Your task to perform on an android device: choose inbox layout in the gmail app Image 0: 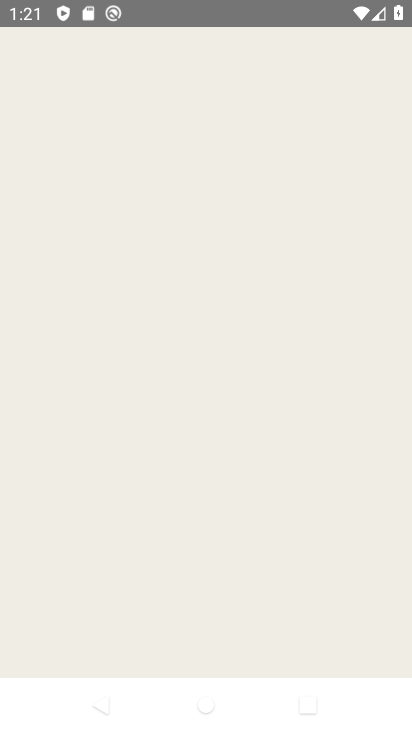
Step 0: click (305, 251)
Your task to perform on an android device: choose inbox layout in the gmail app Image 1: 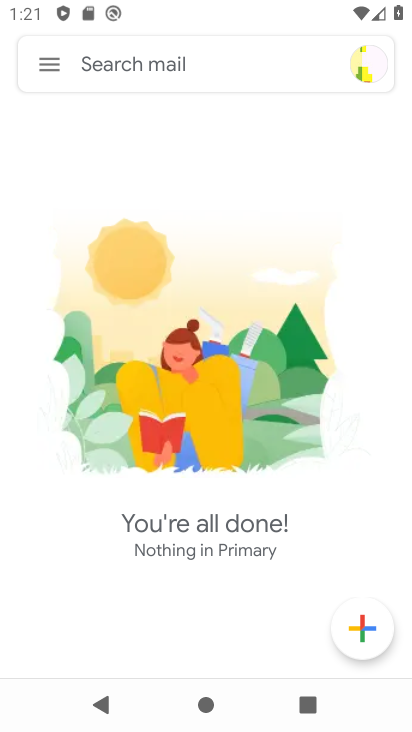
Step 1: press home button
Your task to perform on an android device: choose inbox layout in the gmail app Image 2: 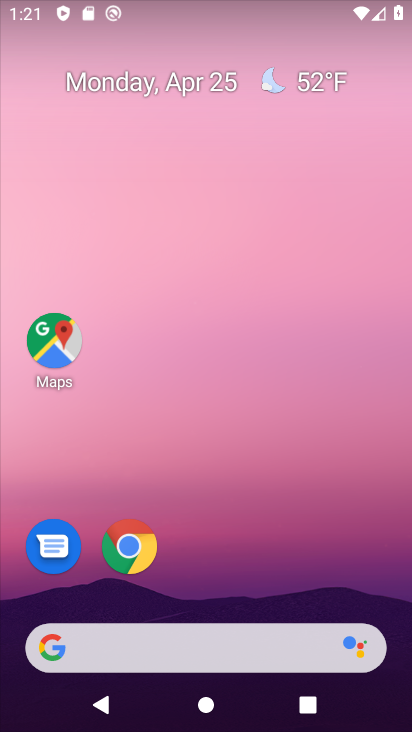
Step 2: drag from (209, 644) to (277, 168)
Your task to perform on an android device: choose inbox layout in the gmail app Image 3: 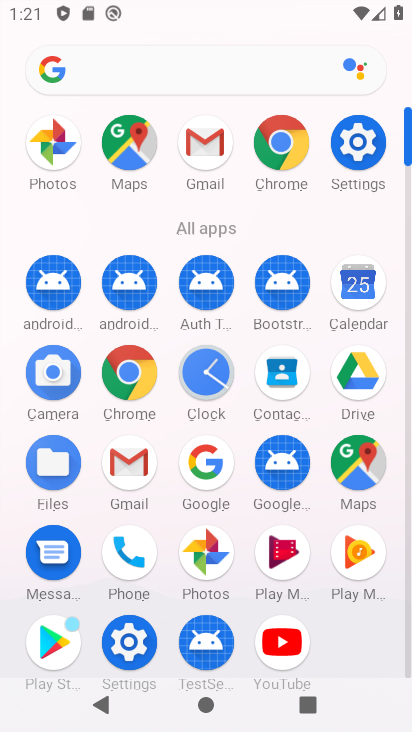
Step 3: click (195, 172)
Your task to perform on an android device: choose inbox layout in the gmail app Image 4: 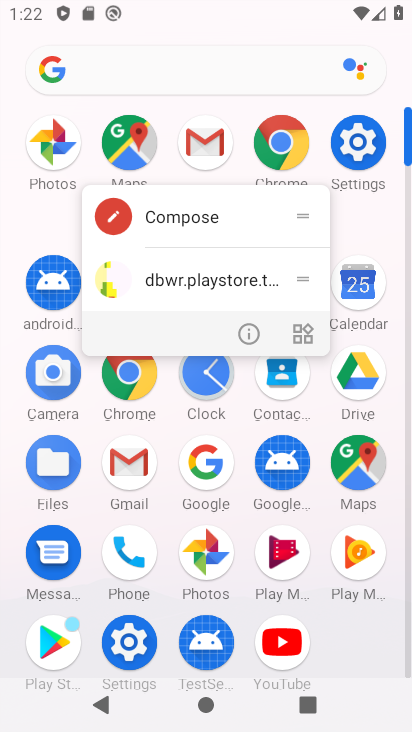
Step 4: click (198, 168)
Your task to perform on an android device: choose inbox layout in the gmail app Image 5: 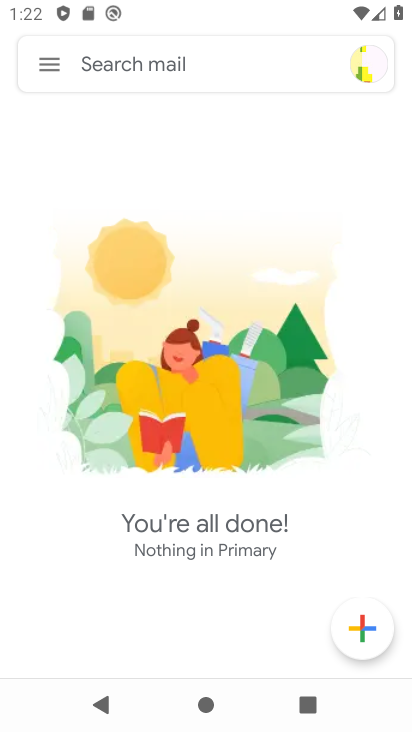
Step 5: click (63, 55)
Your task to perform on an android device: choose inbox layout in the gmail app Image 6: 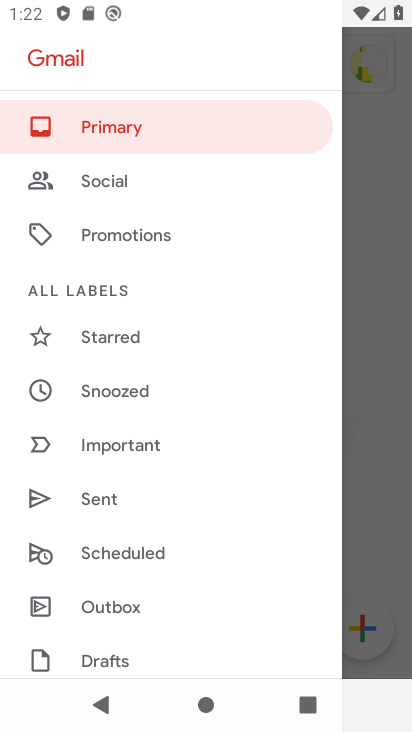
Step 6: drag from (118, 603) to (186, 11)
Your task to perform on an android device: choose inbox layout in the gmail app Image 7: 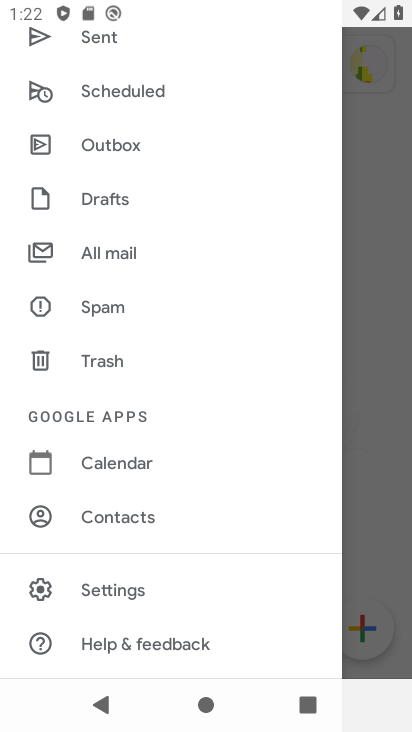
Step 7: click (121, 606)
Your task to perform on an android device: choose inbox layout in the gmail app Image 8: 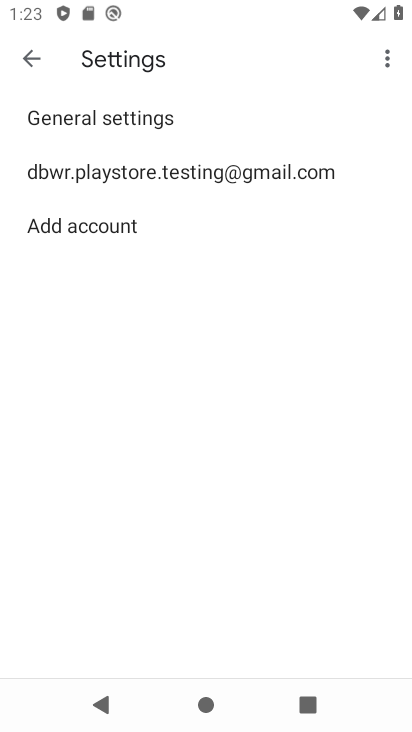
Step 8: click (225, 170)
Your task to perform on an android device: choose inbox layout in the gmail app Image 9: 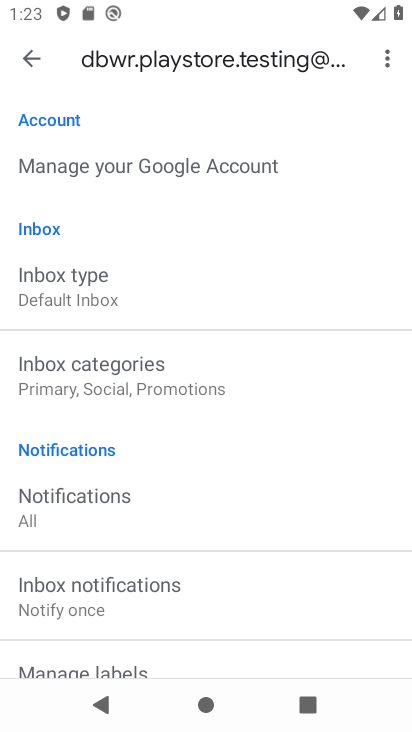
Step 9: click (103, 290)
Your task to perform on an android device: choose inbox layout in the gmail app Image 10: 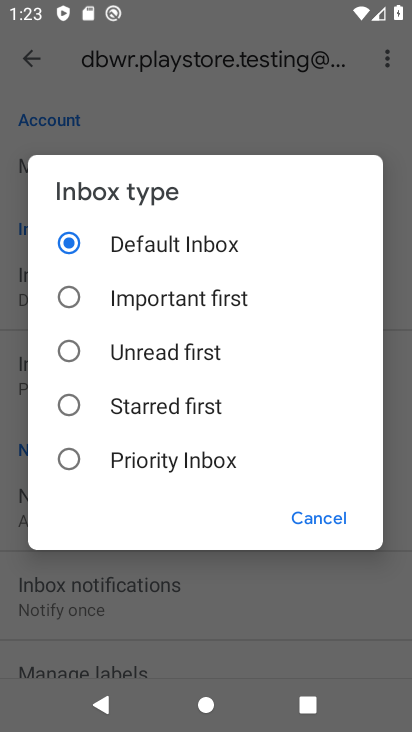
Step 10: click (143, 444)
Your task to perform on an android device: choose inbox layout in the gmail app Image 11: 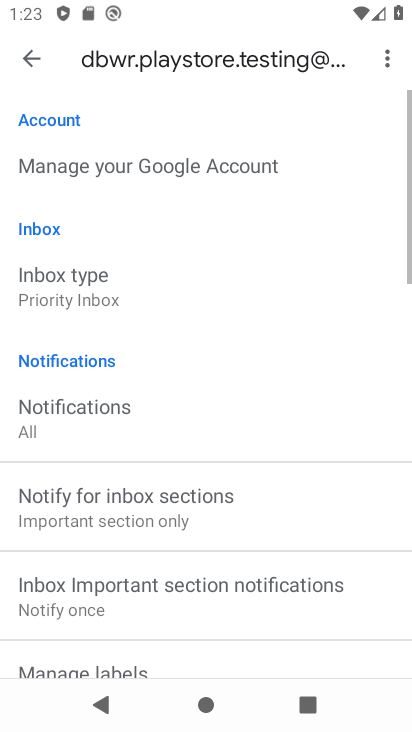
Step 11: task complete